Your task to perform on an android device: Is it going to rain tomorrow? Image 0: 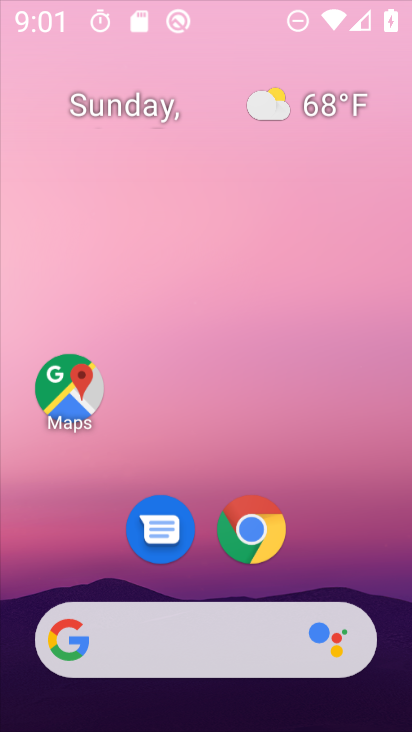
Step 0: press home button
Your task to perform on an android device: Is it going to rain tomorrow? Image 1: 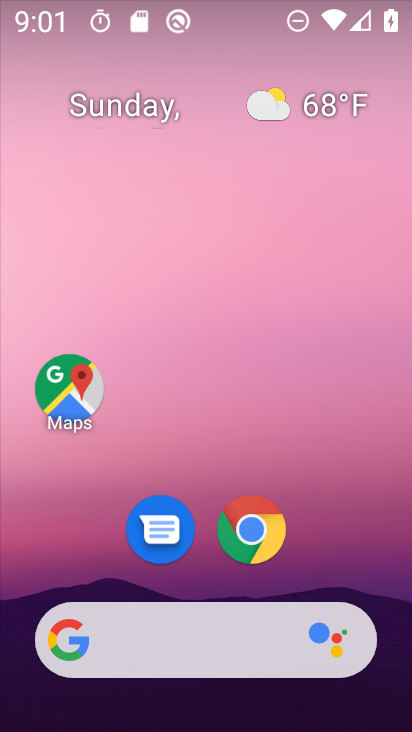
Step 1: click (284, 100)
Your task to perform on an android device: Is it going to rain tomorrow? Image 2: 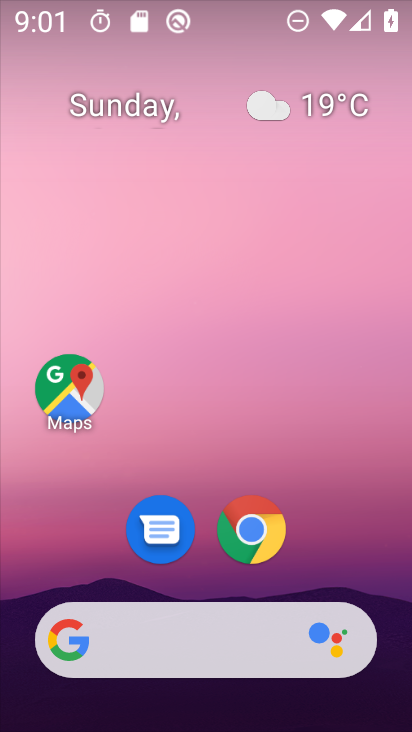
Step 2: click (333, 106)
Your task to perform on an android device: Is it going to rain tomorrow? Image 3: 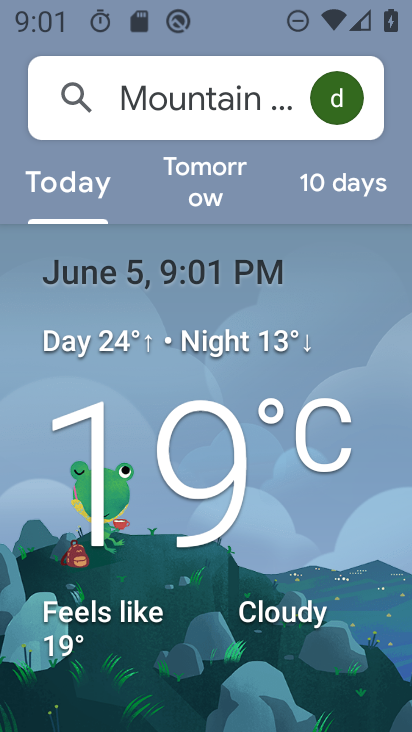
Step 3: click (212, 185)
Your task to perform on an android device: Is it going to rain tomorrow? Image 4: 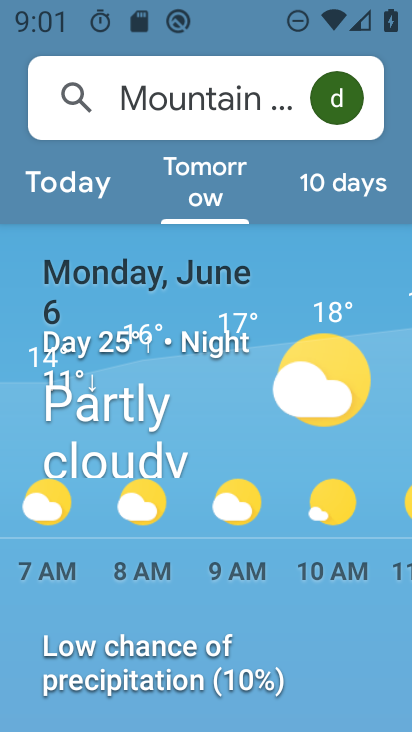
Step 4: task complete